Your task to perform on an android device: Show me recent news Image 0: 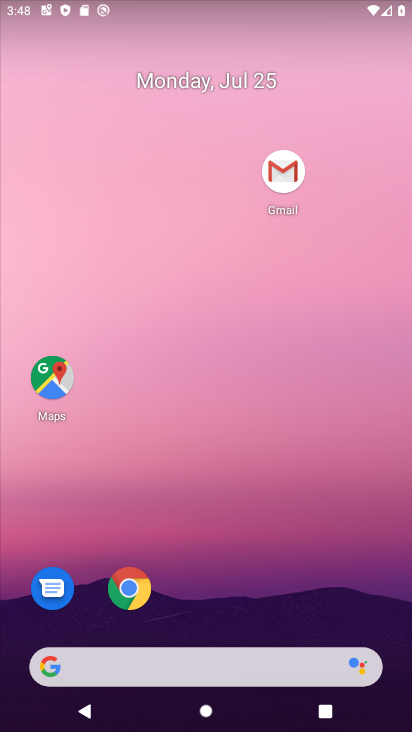
Step 0: drag from (310, 545) to (261, 57)
Your task to perform on an android device: Show me recent news Image 1: 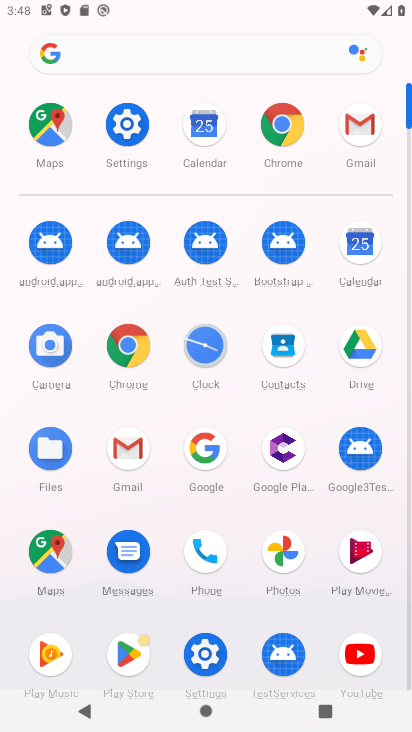
Step 1: click (283, 117)
Your task to perform on an android device: Show me recent news Image 2: 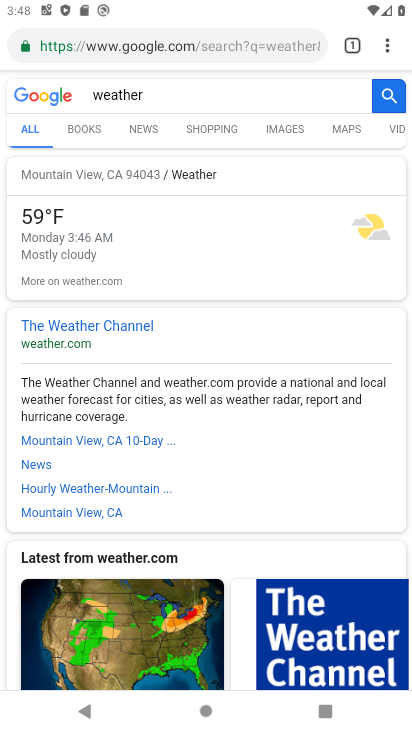
Step 2: click (251, 43)
Your task to perform on an android device: Show me recent news Image 3: 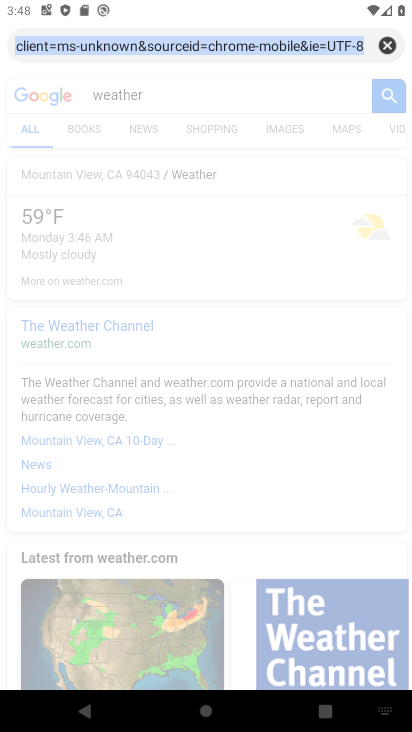
Step 3: type ""
Your task to perform on an android device: Show me recent news Image 4: 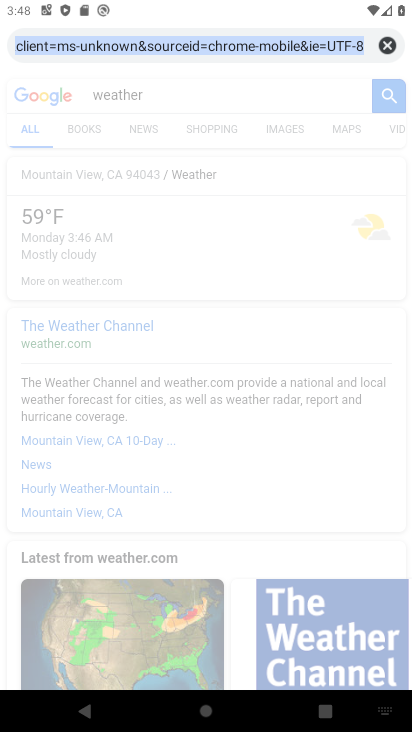
Step 4: type "news"
Your task to perform on an android device: Show me recent news Image 5: 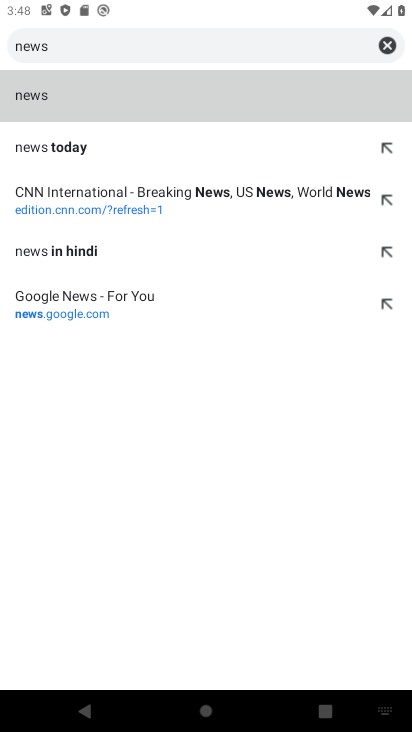
Step 5: click (33, 89)
Your task to perform on an android device: Show me recent news Image 6: 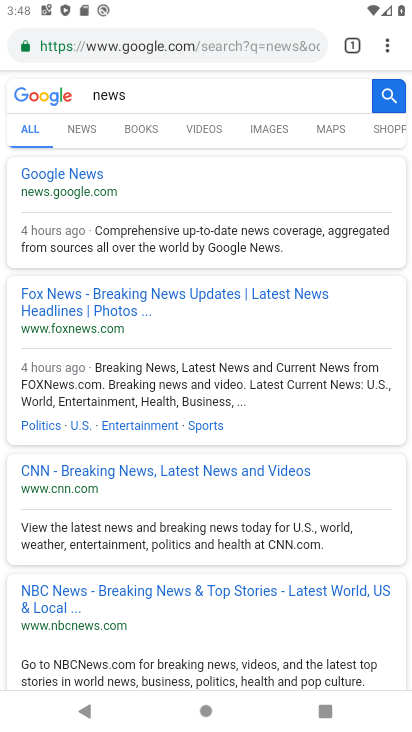
Step 6: click (32, 172)
Your task to perform on an android device: Show me recent news Image 7: 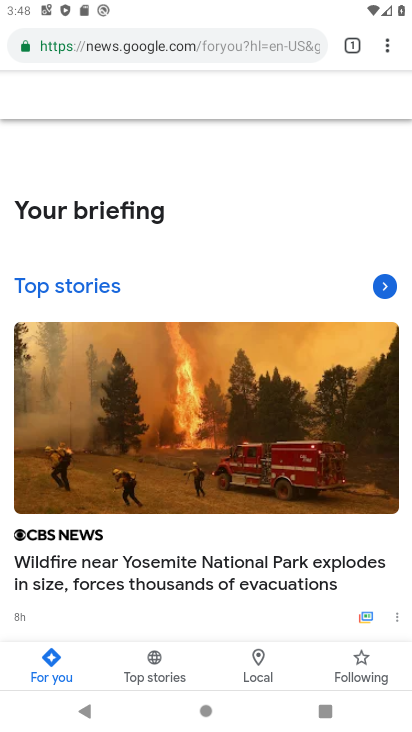
Step 7: task complete